Your task to perform on an android device: Turn off the flashlight Image 0: 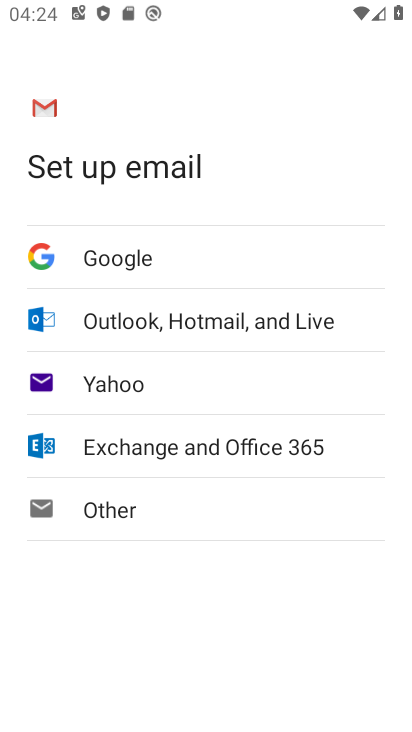
Step 0: press back button
Your task to perform on an android device: Turn off the flashlight Image 1: 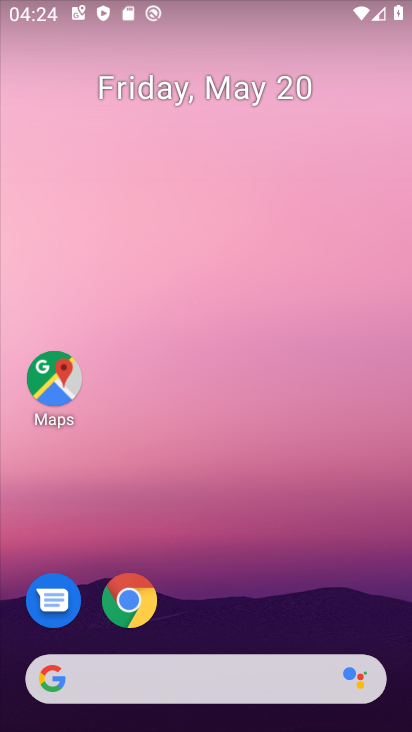
Step 1: drag from (248, 497) to (232, 28)
Your task to perform on an android device: Turn off the flashlight Image 2: 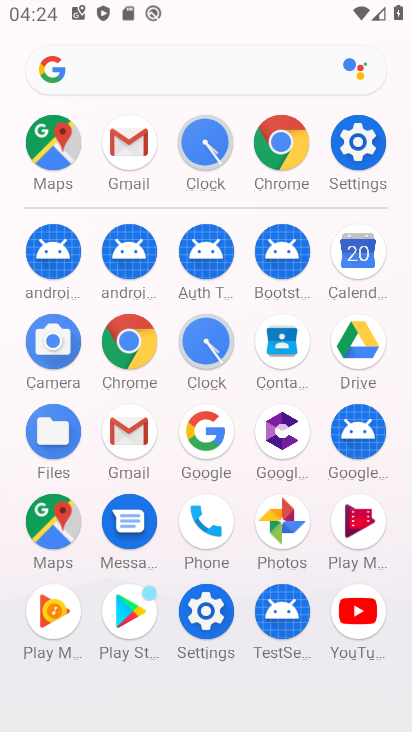
Step 2: drag from (8, 530) to (23, 184)
Your task to perform on an android device: Turn off the flashlight Image 3: 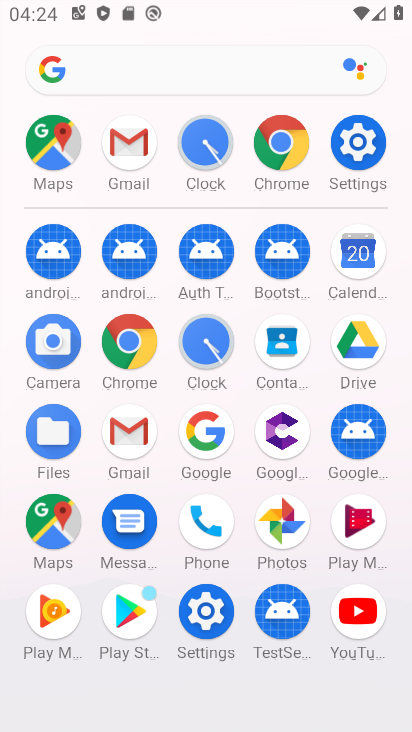
Step 3: click (204, 605)
Your task to perform on an android device: Turn off the flashlight Image 4: 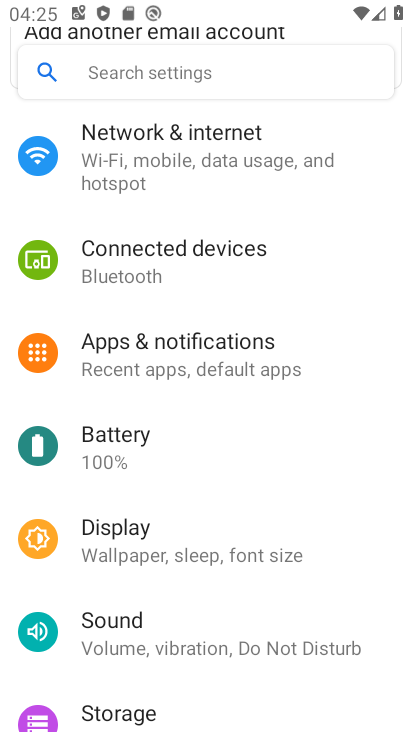
Step 4: drag from (286, 212) to (254, 632)
Your task to perform on an android device: Turn off the flashlight Image 5: 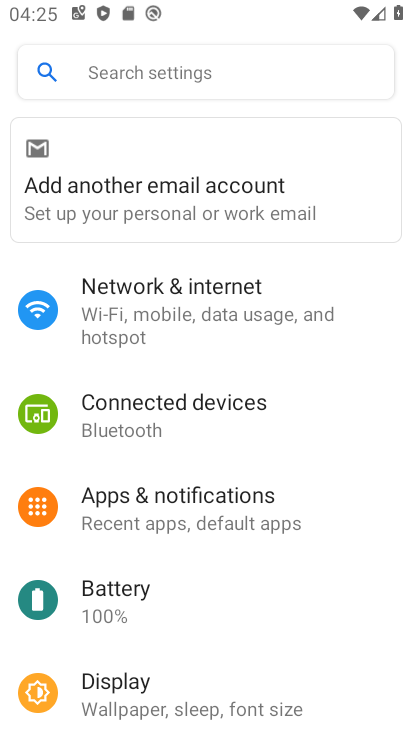
Step 5: click (251, 307)
Your task to perform on an android device: Turn off the flashlight Image 6: 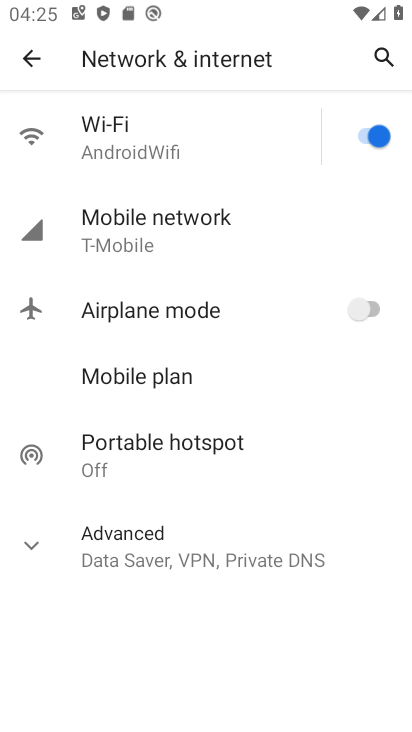
Step 6: click (43, 549)
Your task to perform on an android device: Turn off the flashlight Image 7: 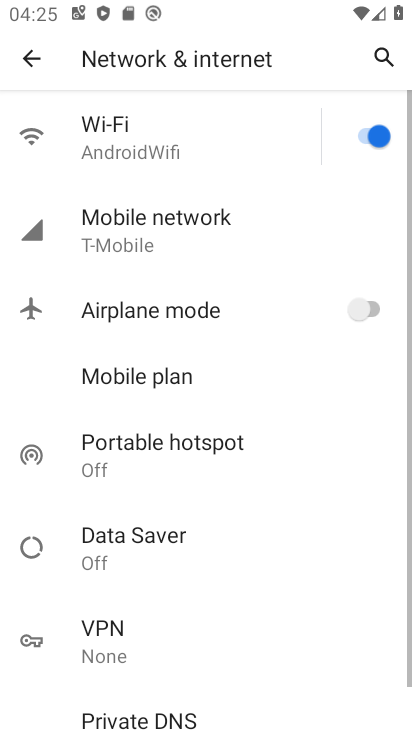
Step 7: task complete